Your task to perform on an android device: Go to display settings Image 0: 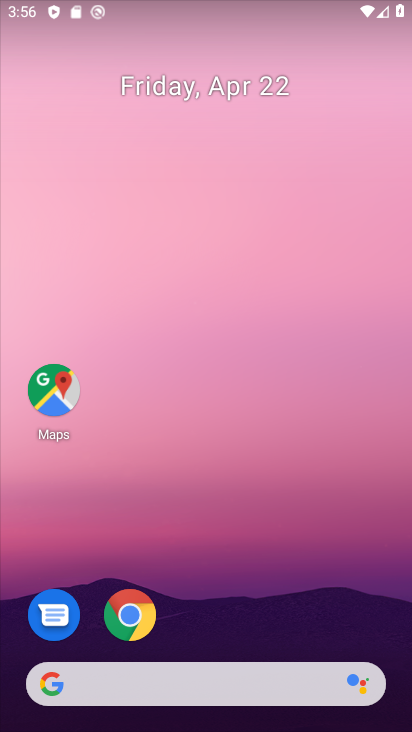
Step 0: drag from (227, 614) to (317, 144)
Your task to perform on an android device: Go to display settings Image 1: 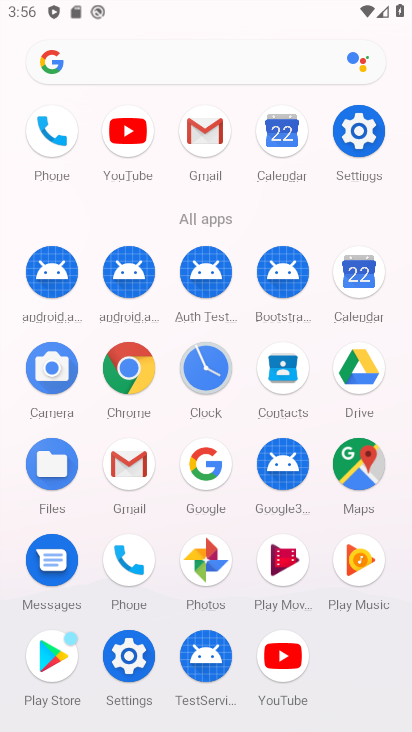
Step 1: click (124, 659)
Your task to perform on an android device: Go to display settings Image 2: 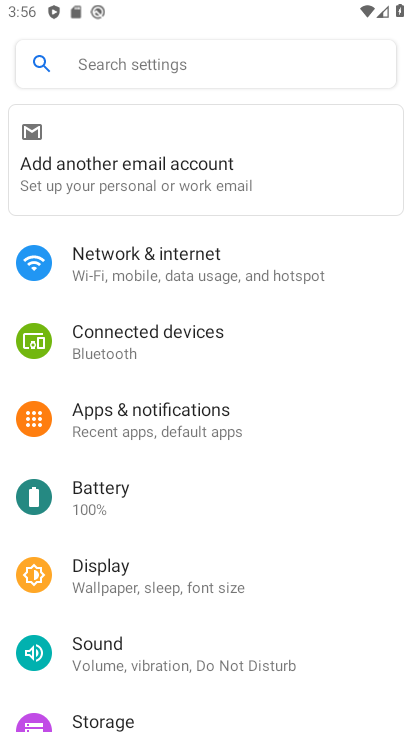
Step 2: click (125, 572)
Your task to perform on an android device: Go to display settings Image 3: 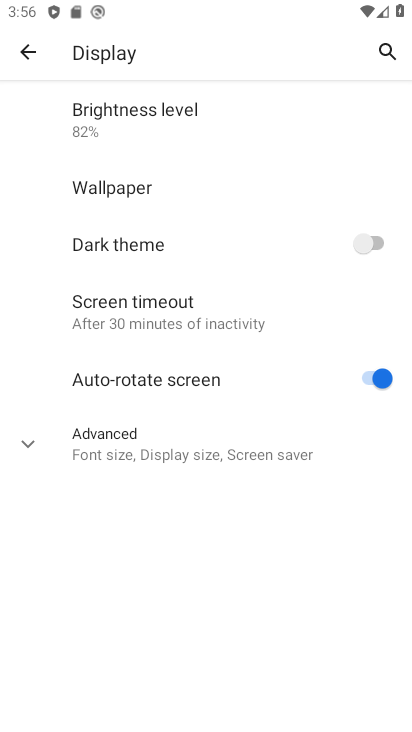
Step 3: task complete